Your task to perform on an android device: open app "Facebook Lite" (install if not already installed) Image 0: 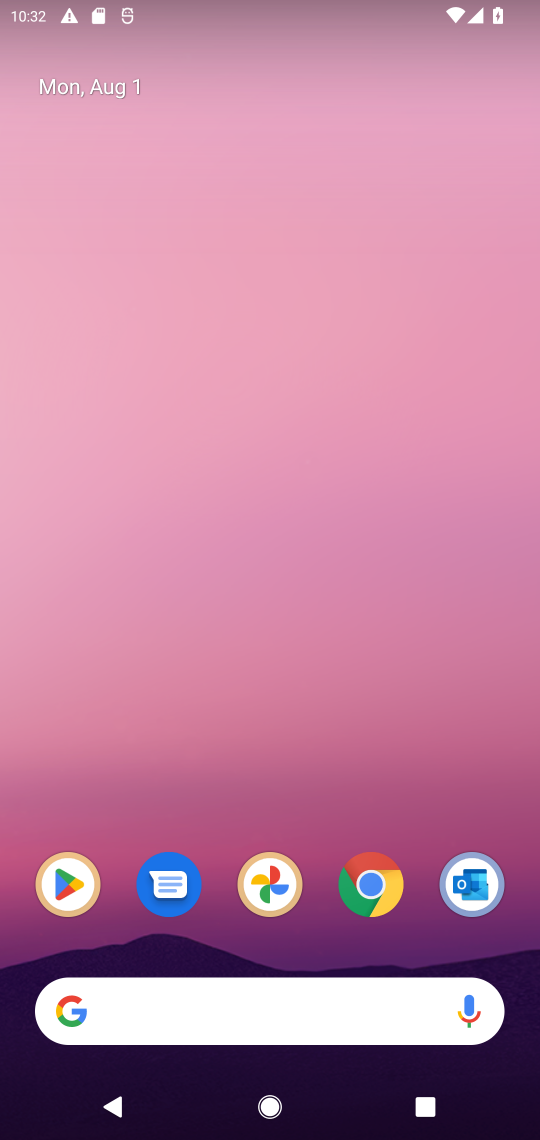
Step 0: click (68, 889)
Your task to perform on an android device: open app "Facebook Lite" (install if not already installed) Image 1: 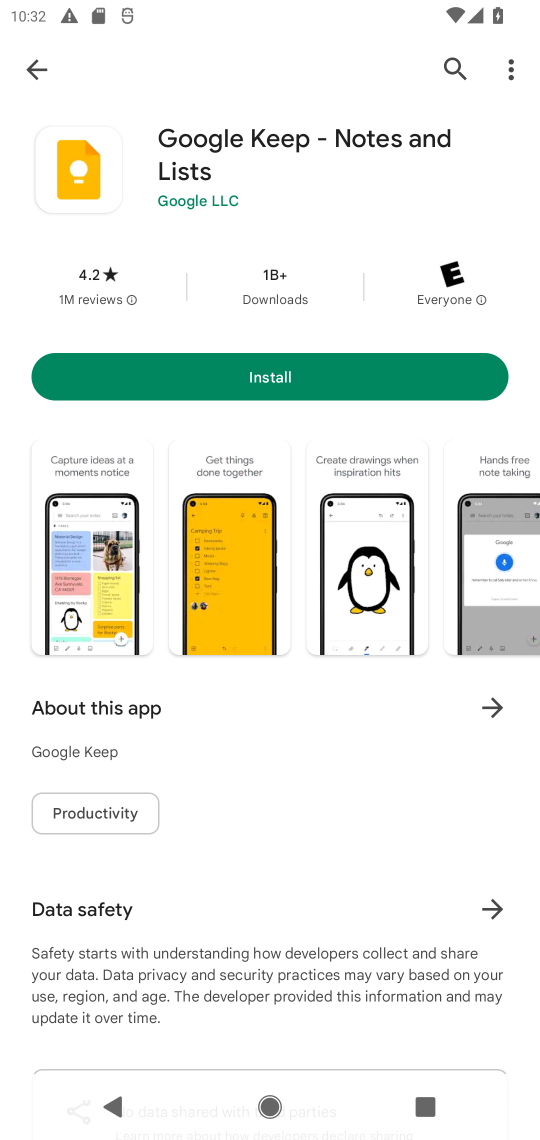
Step 1: click (445, 80)
Your task to perform on an android device: open app "Facebook Lite" (install if not already installed) Image 2: 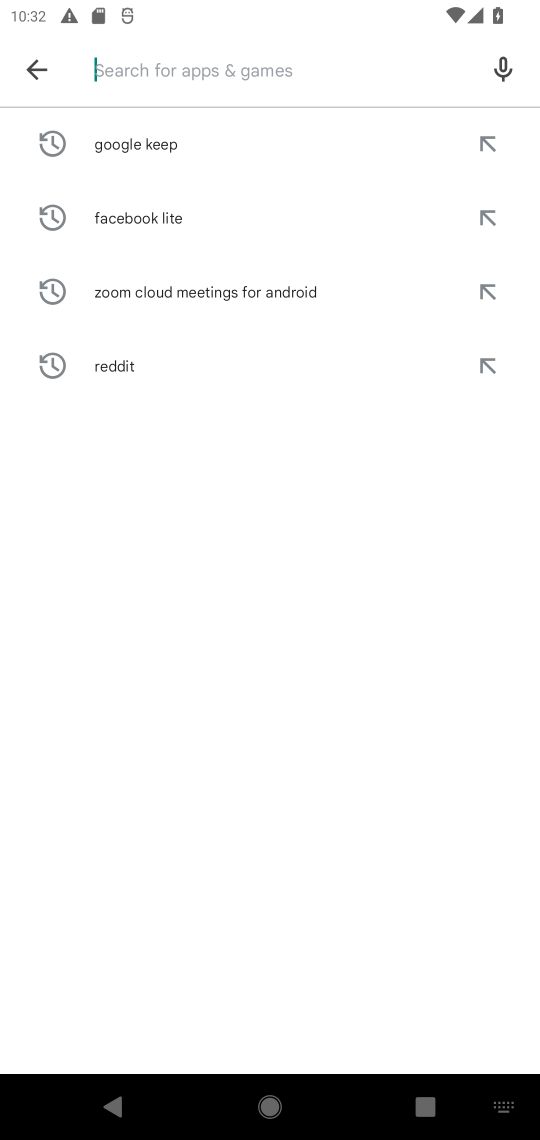
Step 2: type "facebook lite"
Your task to perform on an android device: open app "Facebook Lite" (install if not already installed) Image 3: 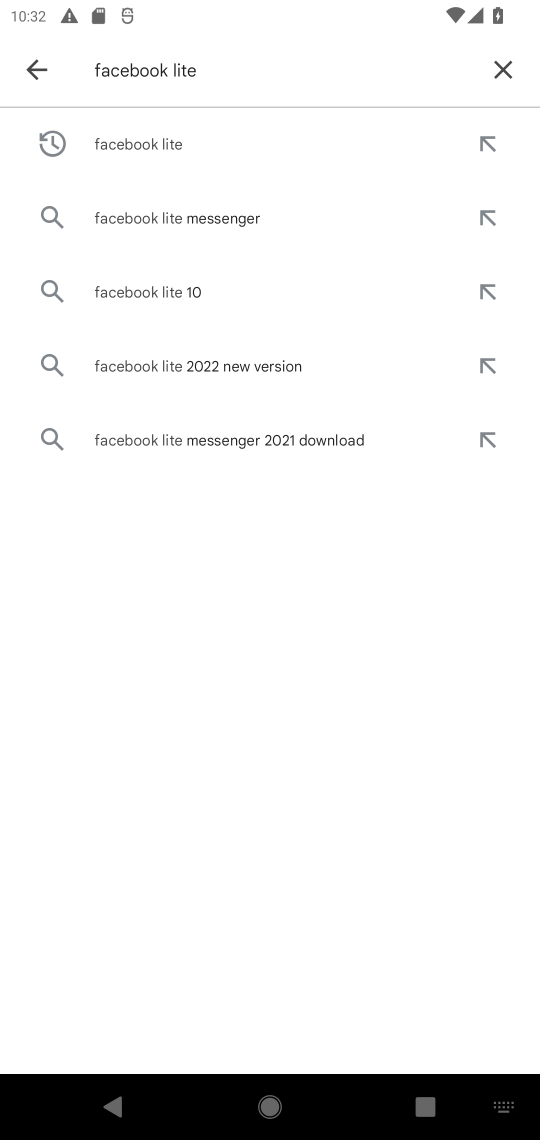
Step 3: click (113, 124)
Your task to perform on an android device: open app "Facebook Lite" (install if not already installed) Image 4: 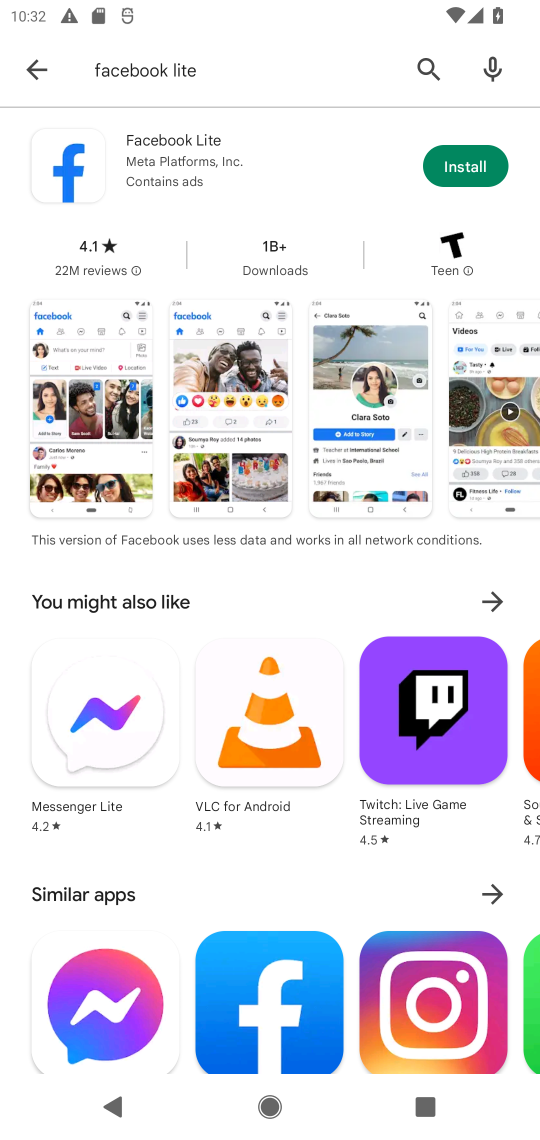
Step 4: click (155, 153)
Your task to perform on an android device: open app "Facebook Lite" (install if not already installed) Image 5: 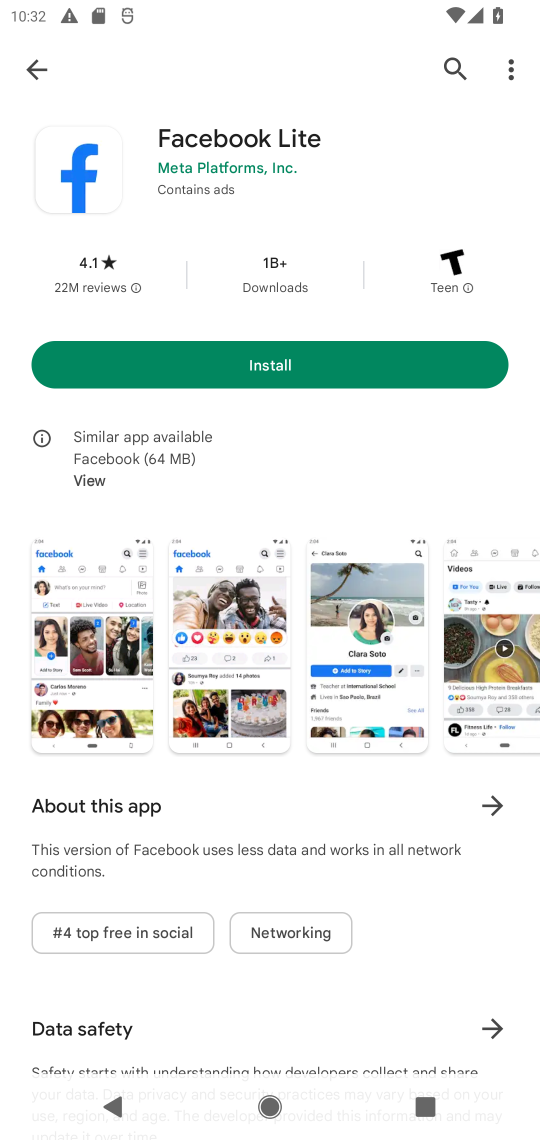
Step 5: click (347, 354)
Your task to perform on an android device: open app "Facebook Lite" (install if not already installed) Image 6: 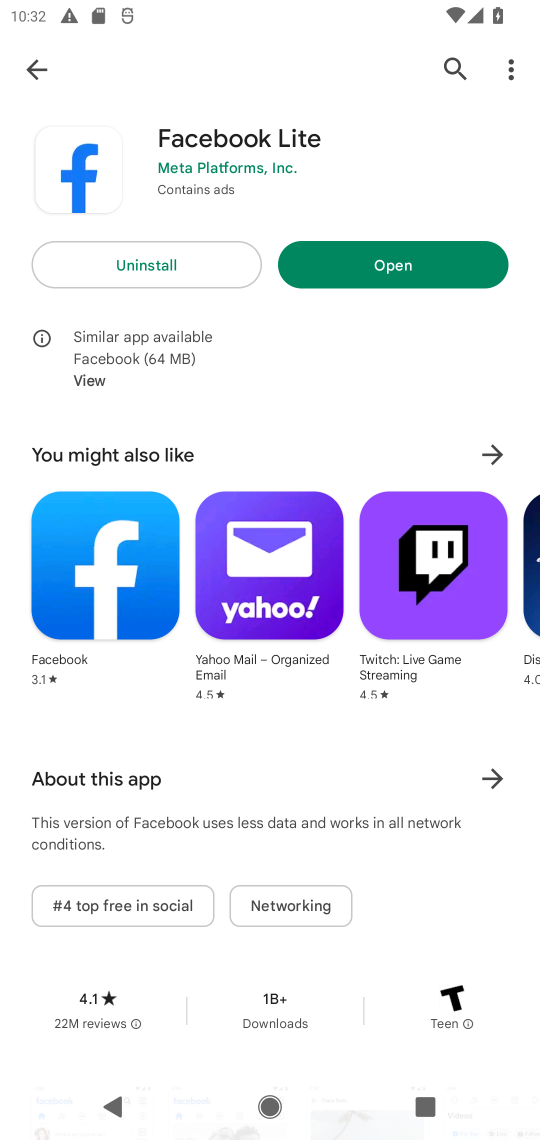
Step 6: click (473, 266)
Your task to perform on an android device: open app "Facebook Lite" (install if not already installed) Image 7: 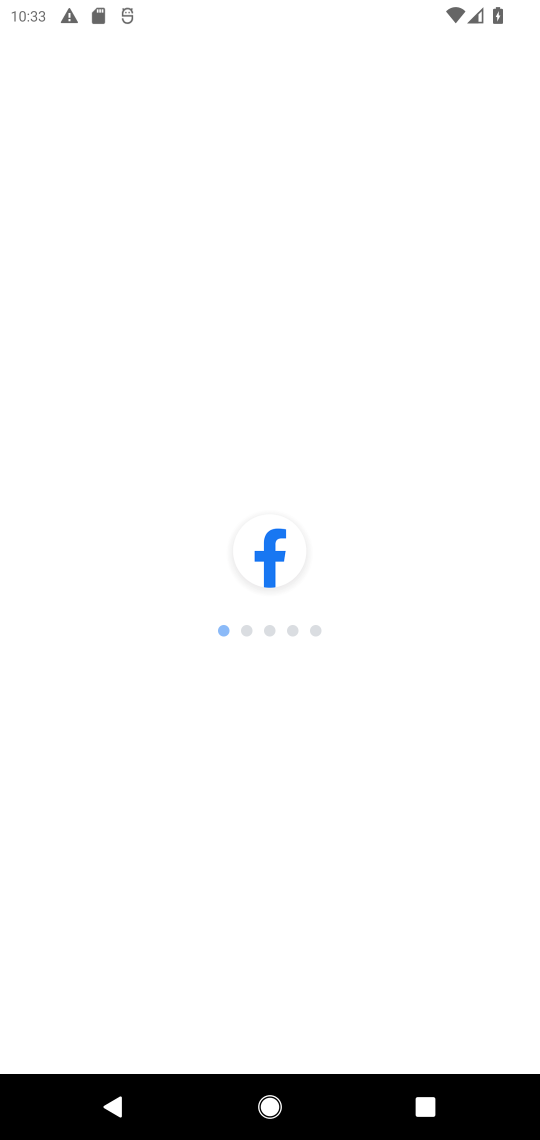
Step 7: task complete